Your task to perform on an android device: change the clock display to show seconds Image 0: 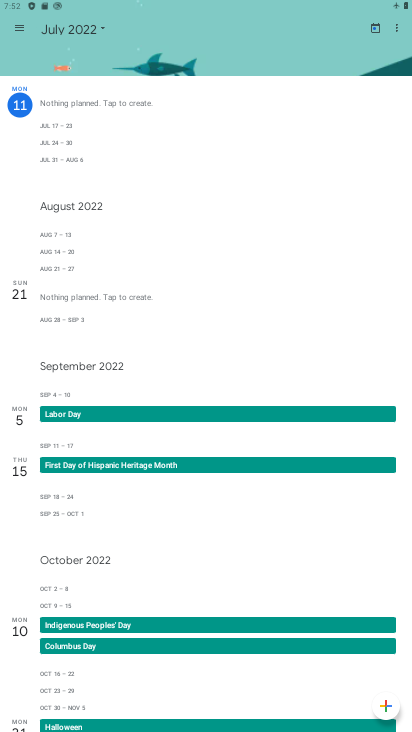
Step 0: press home button
Your task to perform on an android device: change the clock display to show seconds Image 1: 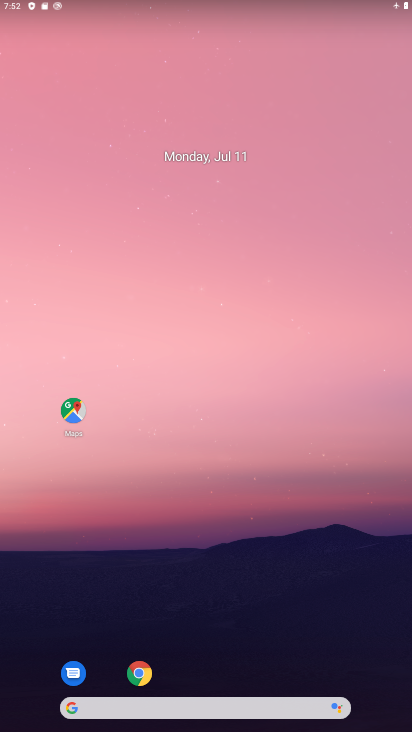
Step 1: drag from (137, 692) to (206, 263)
Your task to perform on an android device: change the clock display to show seconds Image 2: 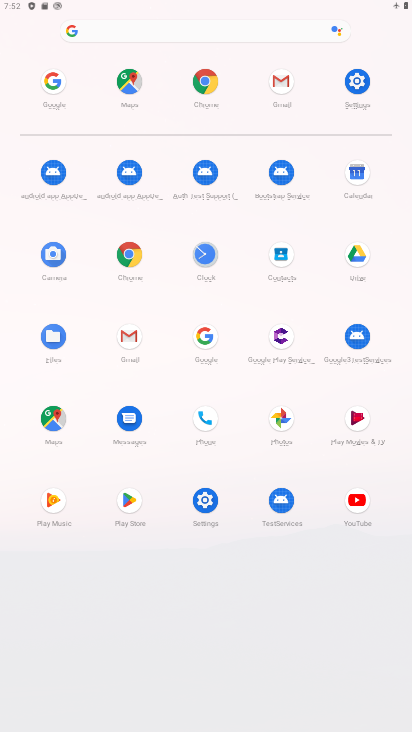
Step 2: click (192, 262)
Your task to perform on an android device: change the clock display to show seconds Image 3: 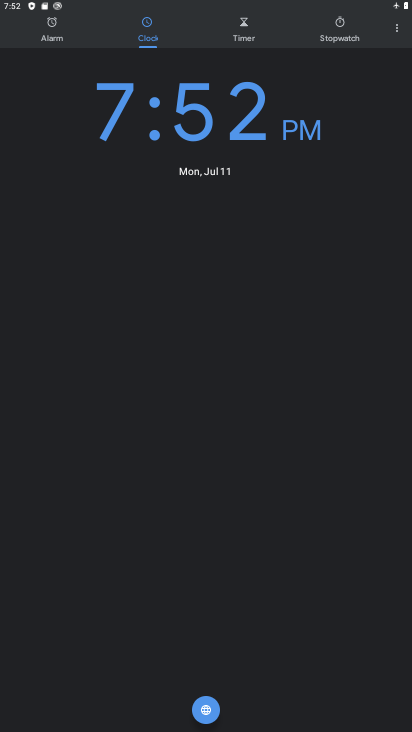
Step 3: click (398, 31)
Your task to perform on an android device: change the clock display to show seconds Image 4: 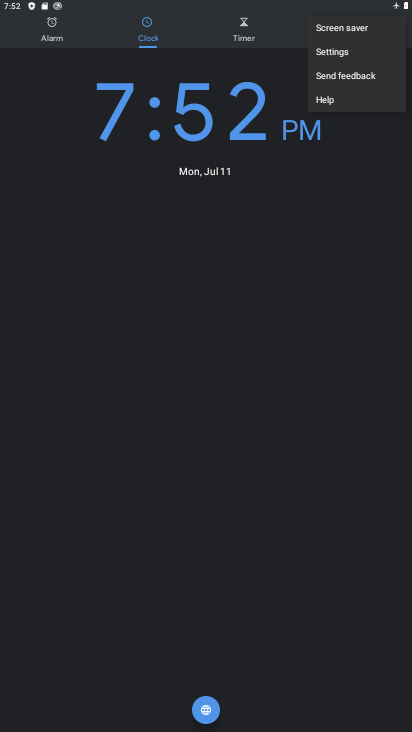
Step 4: click (346, 58)
Your task to perform on an android device: change the clock display to show seconds Image 5: 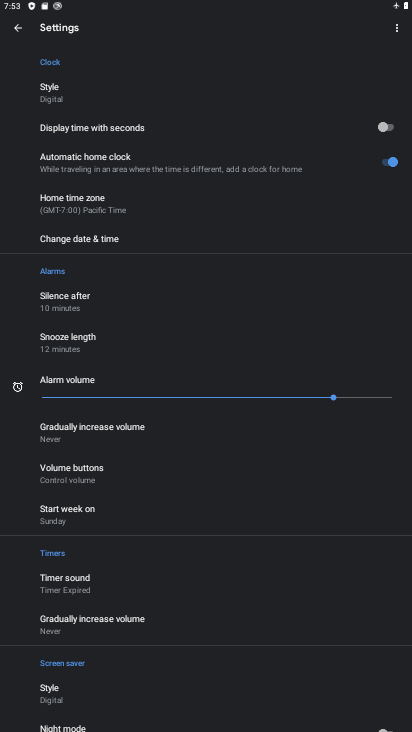
Step 5: click (389, 129)
Your task to perform on an android device: change the clock display to show seconds Image 6: 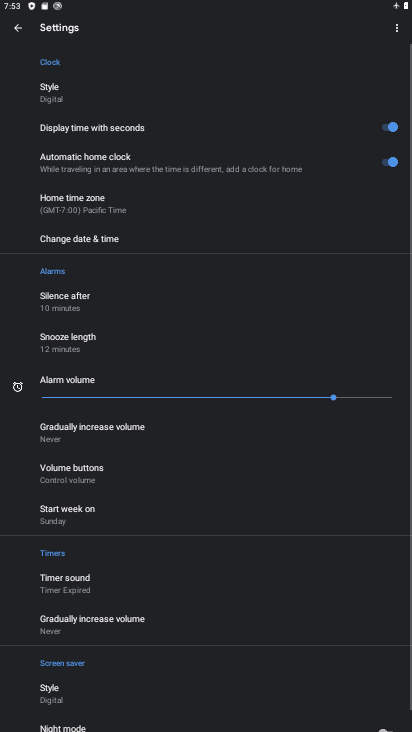
Step 6: task complete